Your task to perform on an android device: Go to Yahoo.com Image 0: 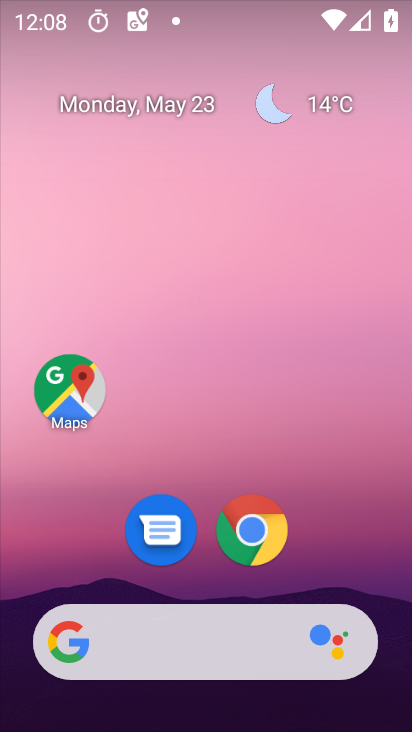
Step 0: click (245, 528)
Your task to perform on an android device: Go to Yahoo.com Image 1: 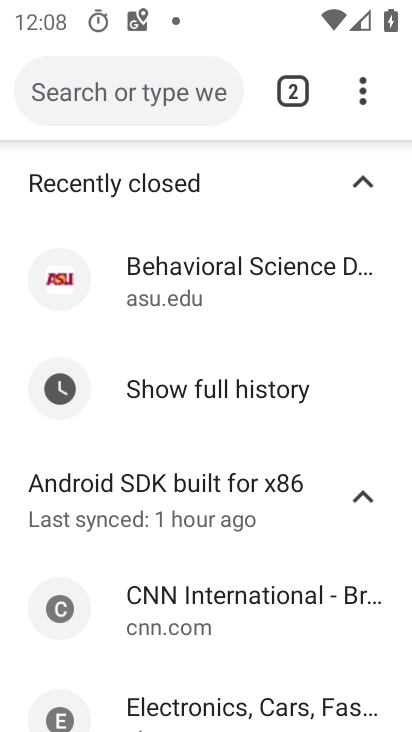
Step 1: click (225, 91)
Your task to perform on an android device: Go to Yahoo.com Image 2: 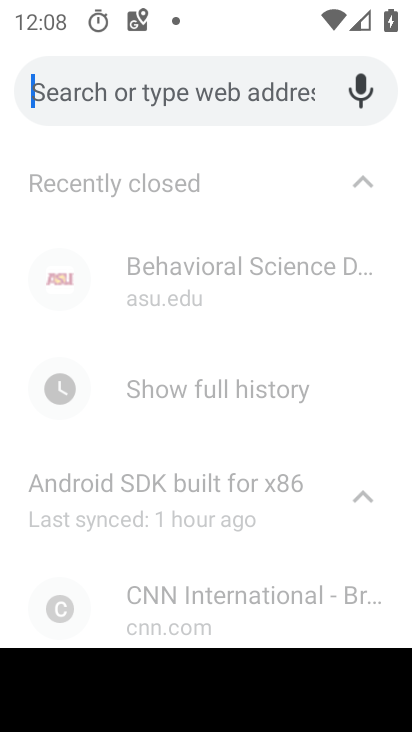
Step 2: type "Yahoo.com"
Your task to perform on an android device: Go to Yahoo.com Image 3: 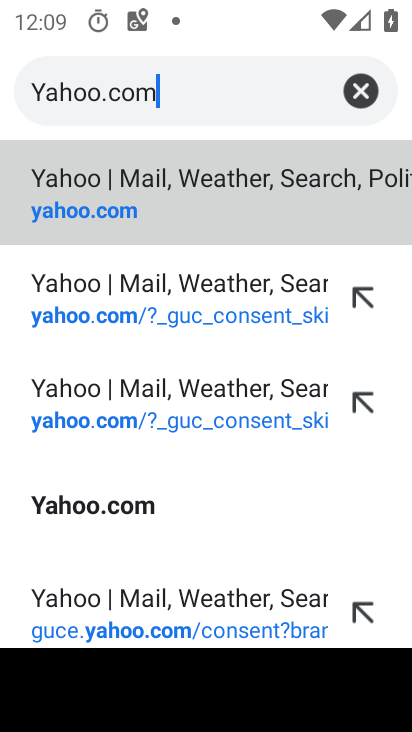
Step 3: click (62, 505)
Your task to perform on an android device: Go to Yahoo.com Image 4: 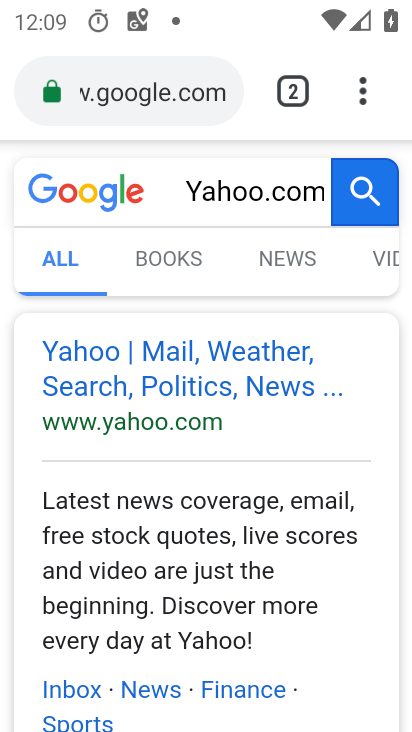
Step 4: task complete